Your task to perform on an android device: Go to Google Image 0: 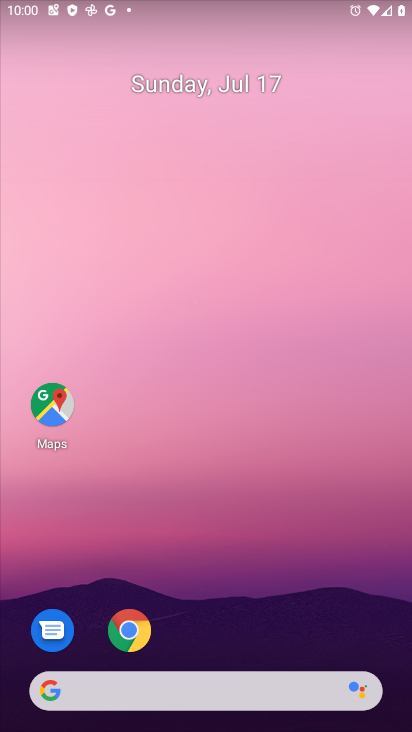
Step 0: click (166, 689)
Your task to perform on an android device: Go to Google Image 1: 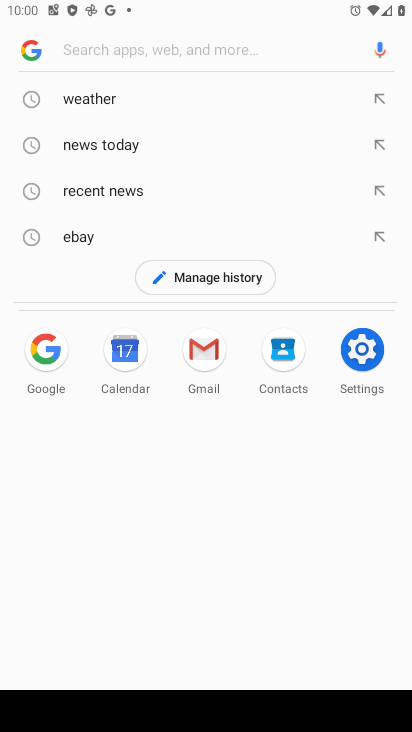
Step 1: task complete